Your task to perform on an android device: turn off smart reply in the gmail app Image 0: 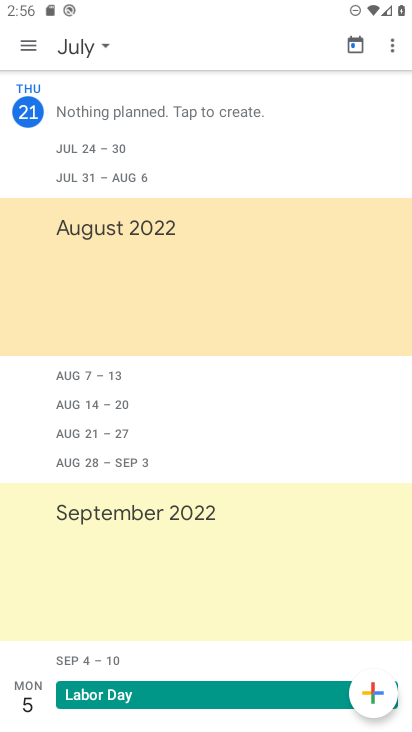
Step 0: press back button
Your task to perform on an android device: turn off smart reply in the gmail app Image 1: 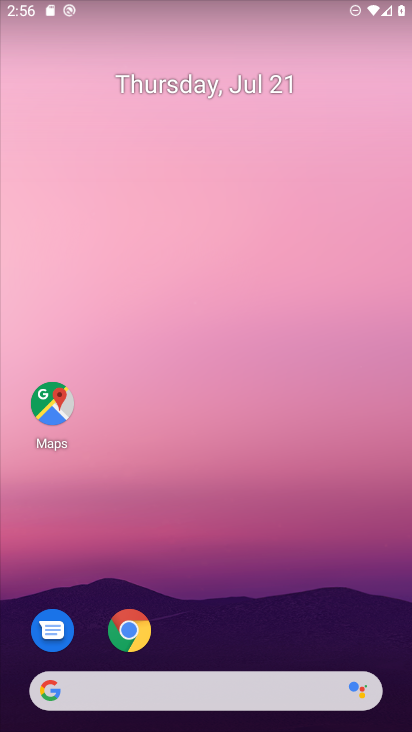
Step 1: drag from (223, 617) to (374, 20)
Your task to perform on an android device: turn off smart reply in the gmail app Image 2: 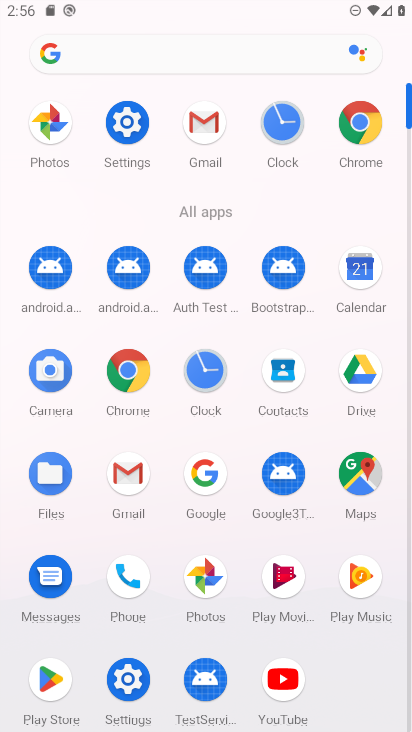
Step 2: click (203, 126)
Your task to perform on an android device: turn off smart reply in the gmail app Image 3: 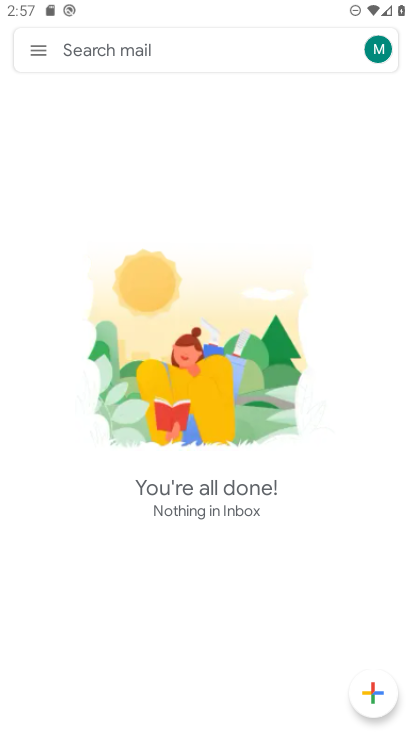
Step 3: click (37, 48)
Your task to perform on an android device: turn off smart reply in the gmail app Image 4: 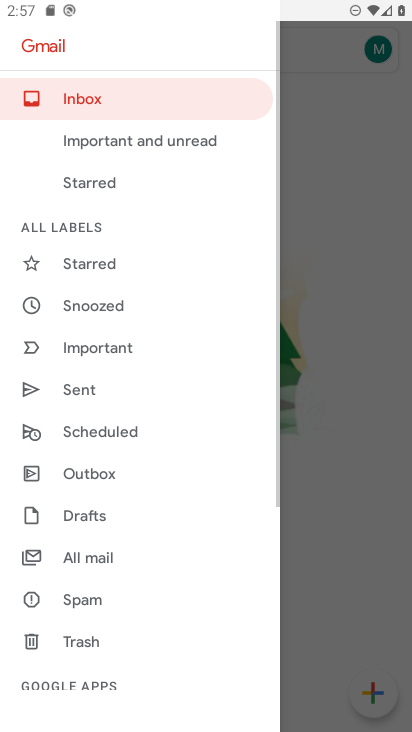
Step 4: drag from (112, 604) to (112, 72)
Your task to perform on an android device: turn off smart reply in the gmail app Image 5: 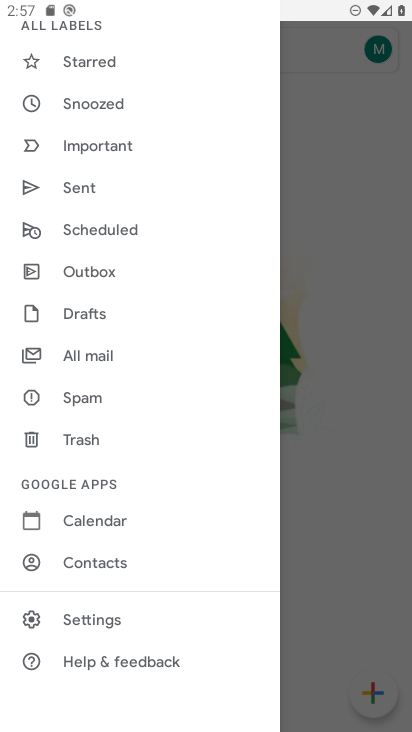
Step 5: click (82, 617)
Your task to perform on an android device: turn off smart reply in the gmail app Image 6: 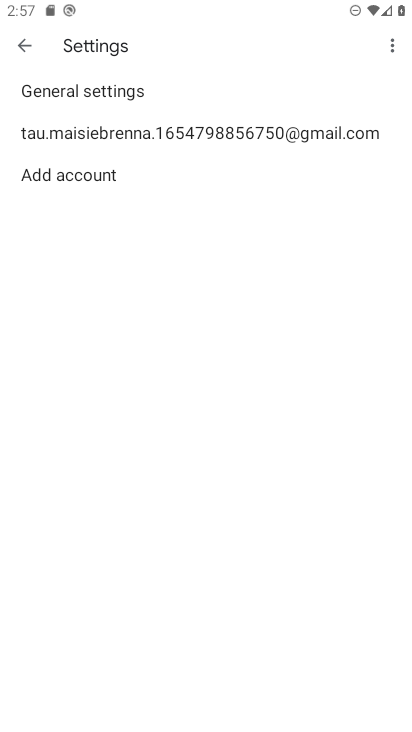
Step 6: click (112, 141)
Your task to perform on an android device: turn off smart reply in the gmail app Image 7: 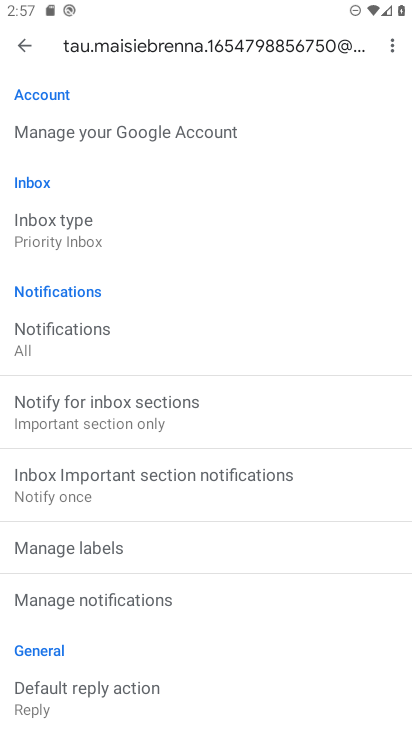
Step 7: drag from (101, 670) to (211, 83)
Your task to perform on an android device: turn off smart reply in the gmail app Image 8: 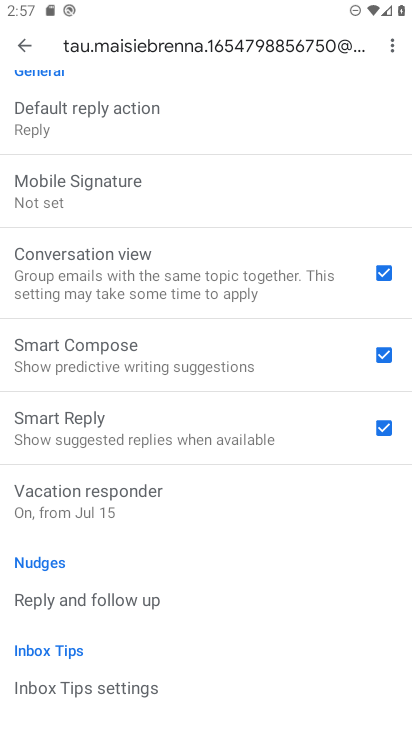
Step 8: click (384, 424)
Your task to perform on an android device: turn off smart reply in the gmail app Image 9: 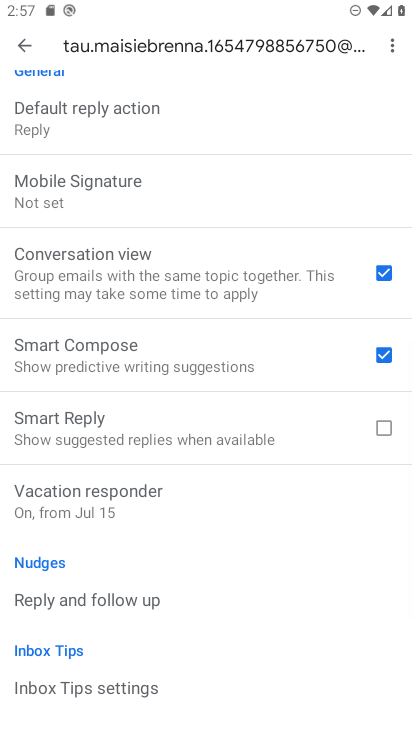
Step 9: task complete